Your task to perform on an android device: Search for vegetarian restaurants on Maps Image 0: 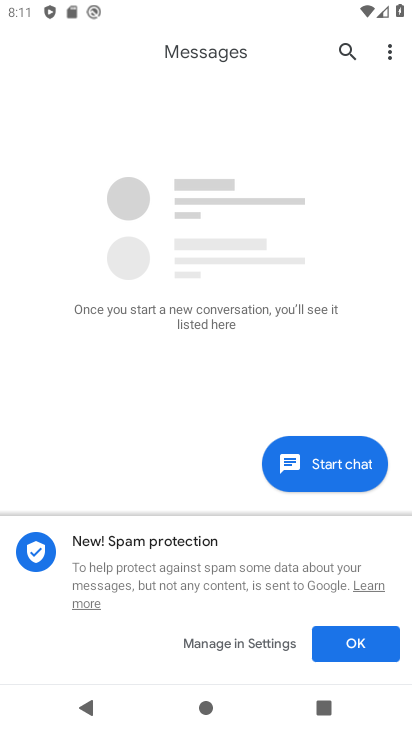
Step 0: press home button
Your task to perform on an android device: Search for vegetarian restaurants on Maps Image 1: 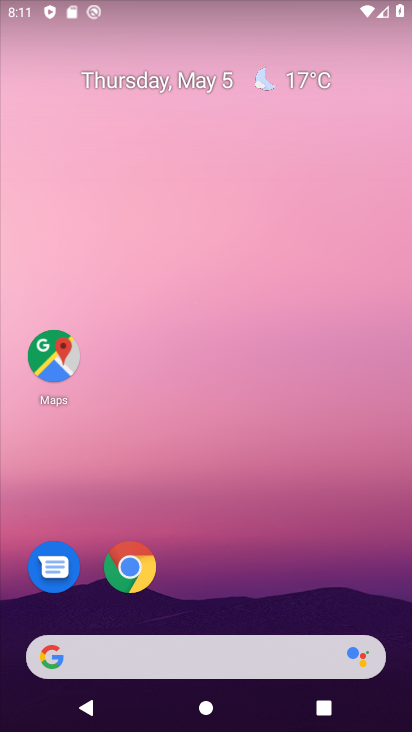
Step 1: drag from (260, 540) to (274, 108)
Your task to perform on an android device: Search for vegetarian restaurants on Maps Image 2: 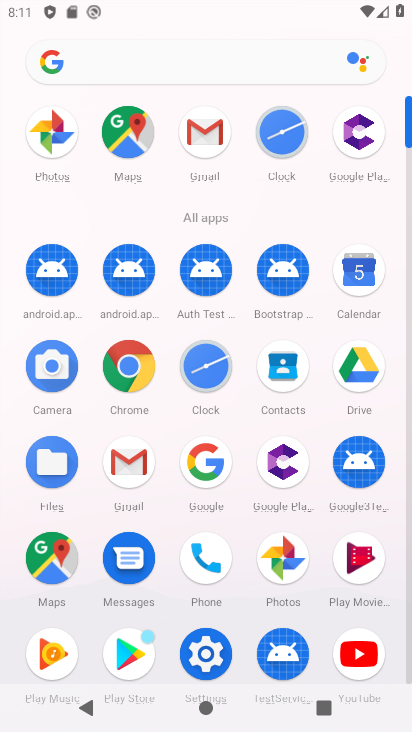
Step 2: click (127, 136)
Your task to perform on an android device: Search for vegetarian restaurants on Maps Image 3: 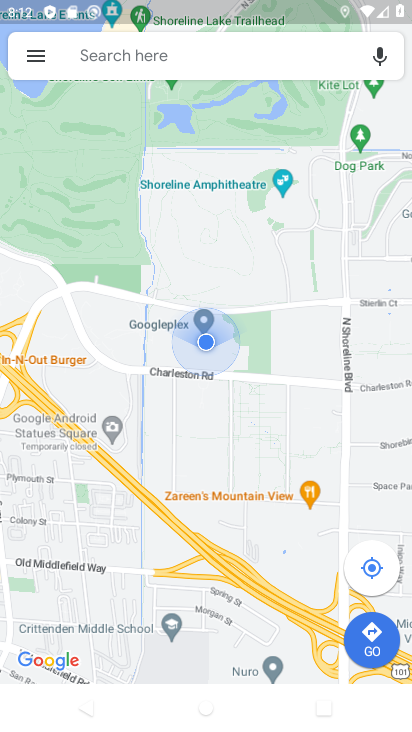
Step 3: click (245, 54)
Your task to perform on an android device: Search for vegetarian restaurants on Maps Image 4: 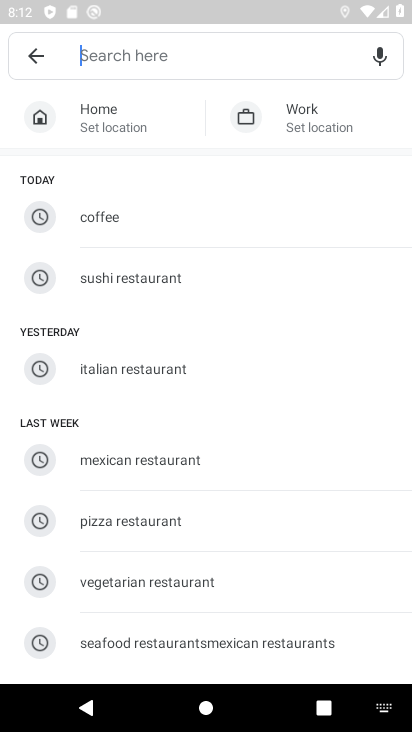
Step 4: click (186, 583)
Your task to perform on an android device: Search for vegetarian restaurants on Maps Image 5: 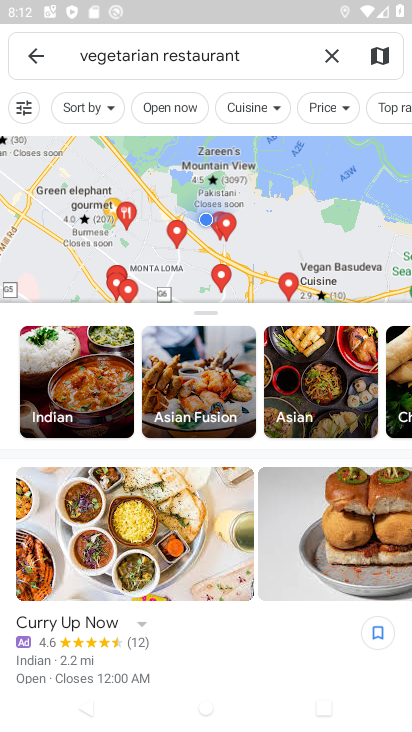
Step 5: task complete